Your task to perform on an android device: turn off wifi Image 0: 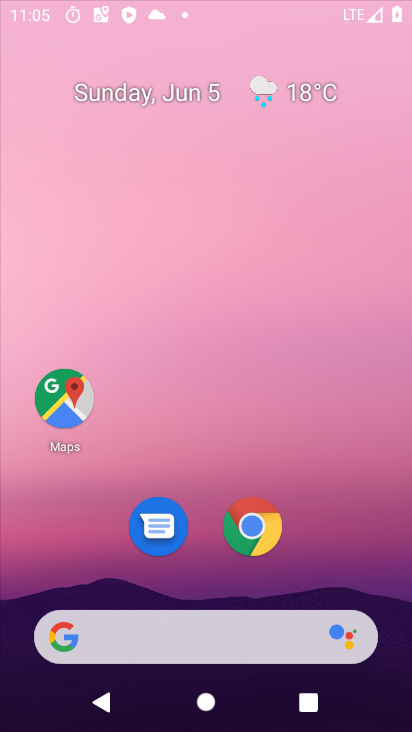
Step 0: press home button
Your task to perform on an android device: turn off wifi Image 1: 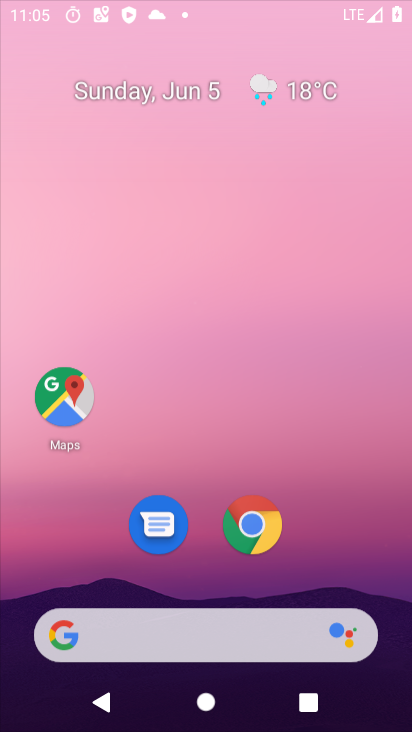
Step 1: click (254, 538)
Your task to perform on an android device: turn off wifi Image 2: 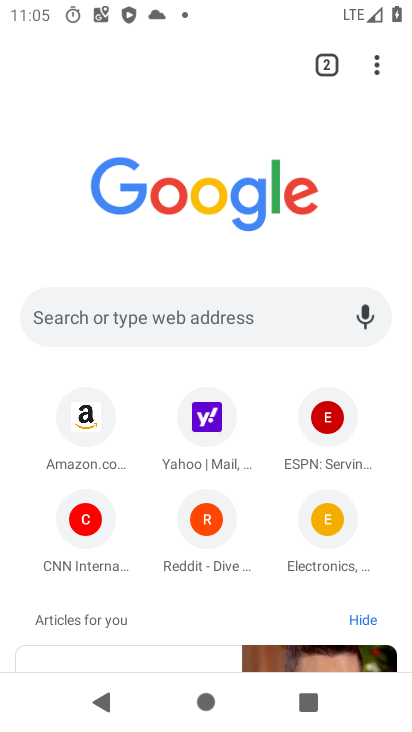
Step 2: press home button
Your task to perform on an android device: turn off wifi Image 3: 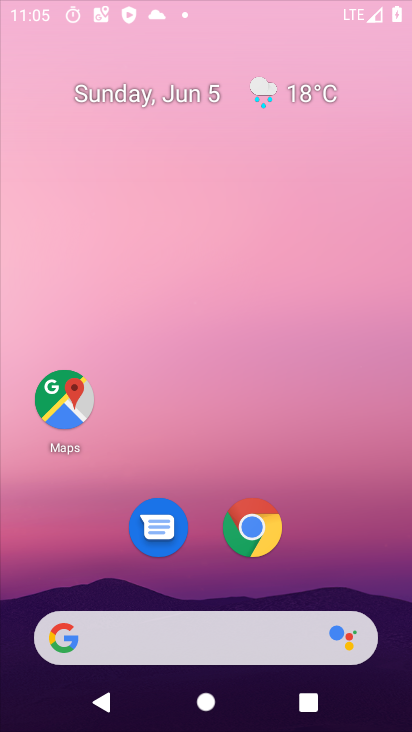
Step 3: drag from (407, 468) to (204, 22)
Your task to perform on an android device: turn off wifi Image 4: 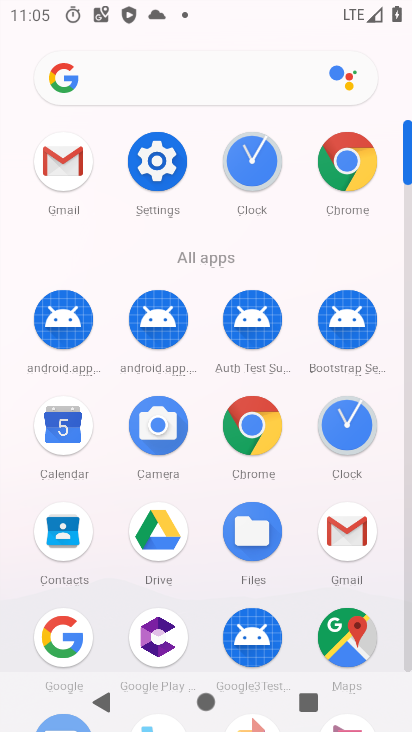
Step 4: click (165, 162)
Your task to perform on an android device: turn off wifi Image 5: 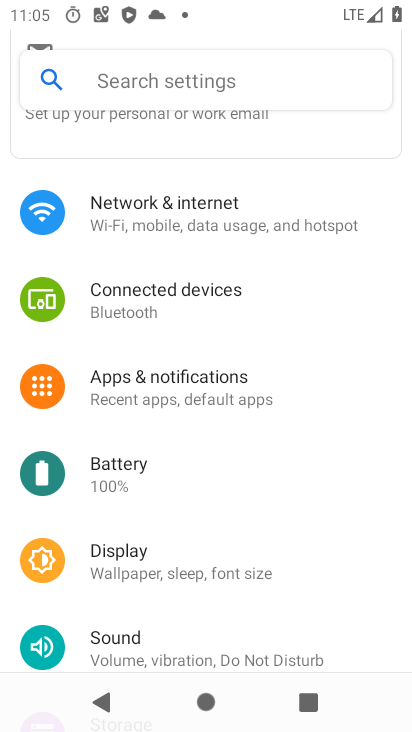
Step 5: click (204, 218)
Your task to perform on an android device: turn off wifi Image 6: 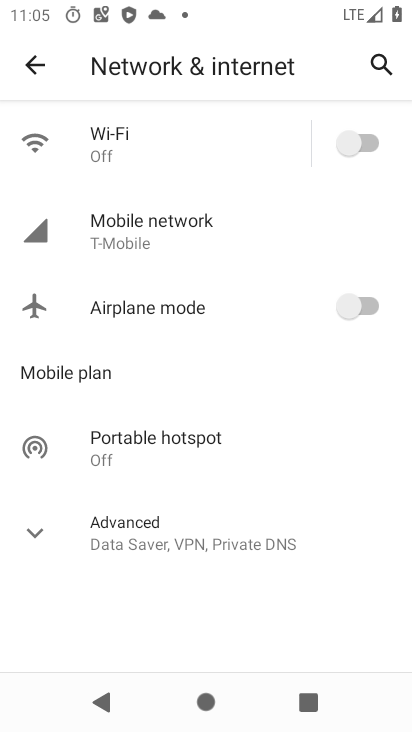
Step 6: task complete